Your task to perform on an android device: open chrome and create a bookmark for the current page Image 0: 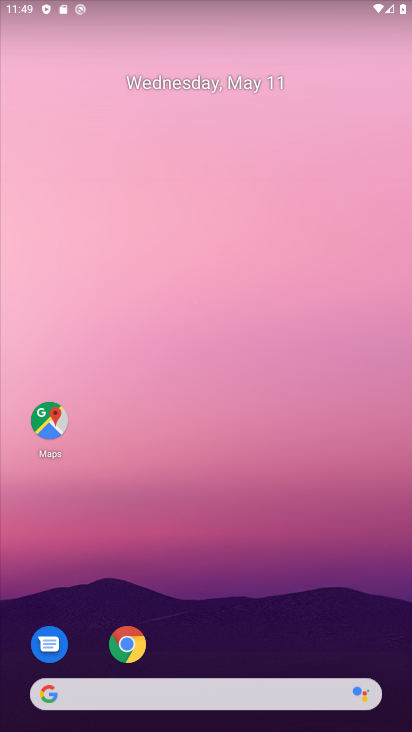
Step 0: drag from (252, 615) to (208, 130)
Your task to perform on an android device: open chrome and create a bookmark for the current page Image 1: 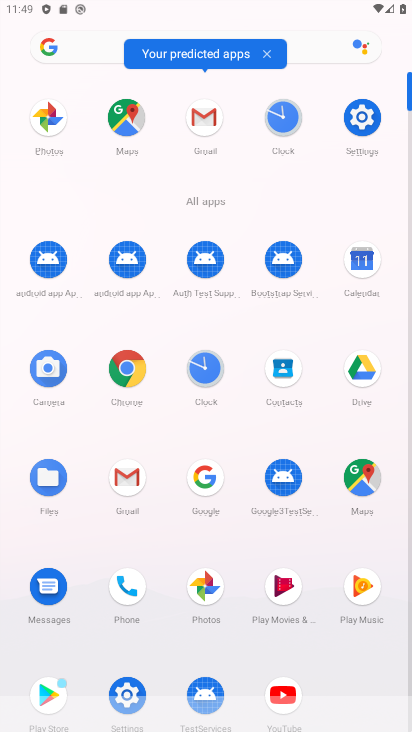
Step 1: click (114, 376)
Your task to perform on an android device: open chrome and create a bookmark for the current page Image 2: 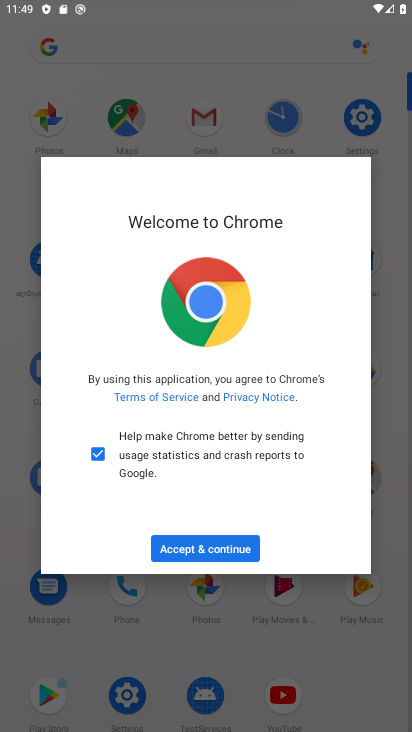
Step 2: click (241, 548)
Your task to perform on an android device: open chrome and create a bookmark for the current page Image 3: 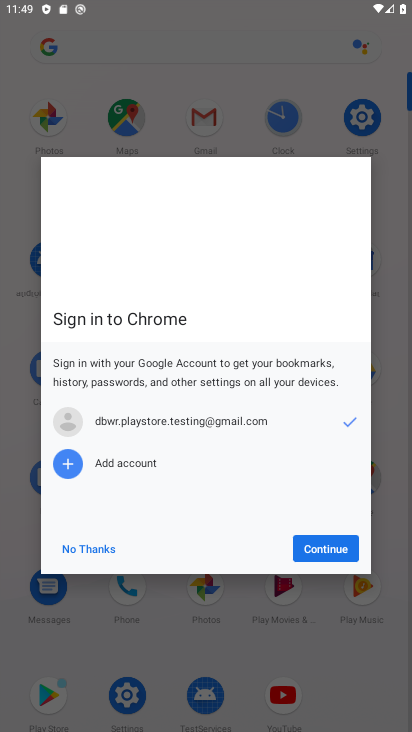
Step 3: click (329, 542)
Your task to perform on an android device: open chrome and create a bookmark for the current page Image 4: 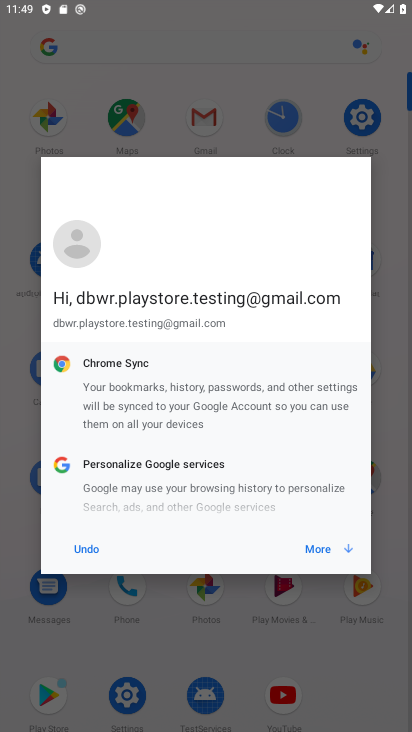
Step 4: click (329, 542)
Your task to perform on an android device: open chrome and create a bookmark for the current page Image 5: 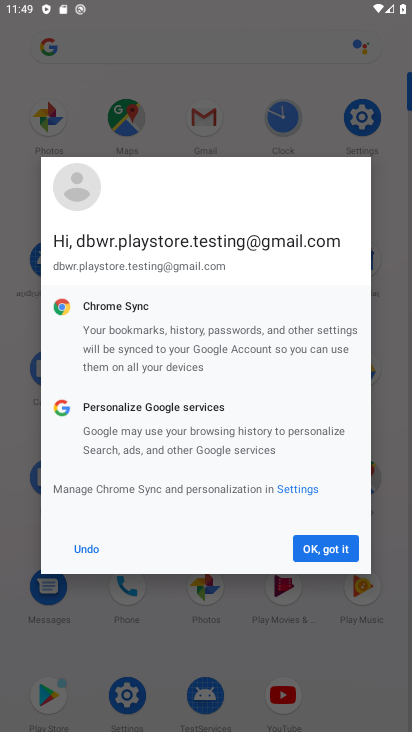
Step 5: click (329, 542)
Your task to perform on an android device: open chrome and create a bookmark for the current page Image 6: 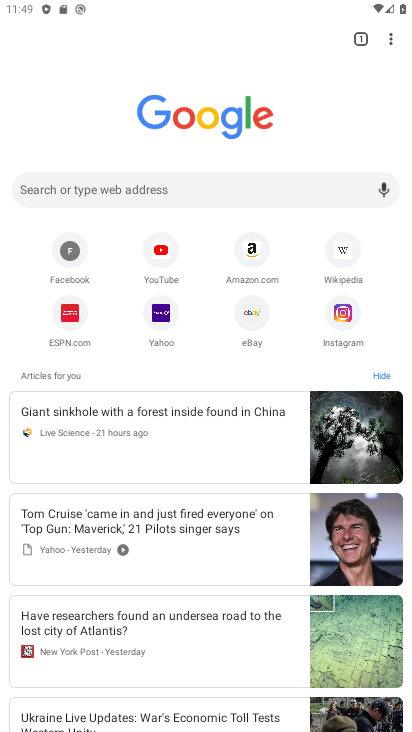
Step 6: click (262, 183)
Your task to perform on an android device: open chrome and create a bookmark for the current page Image 7: 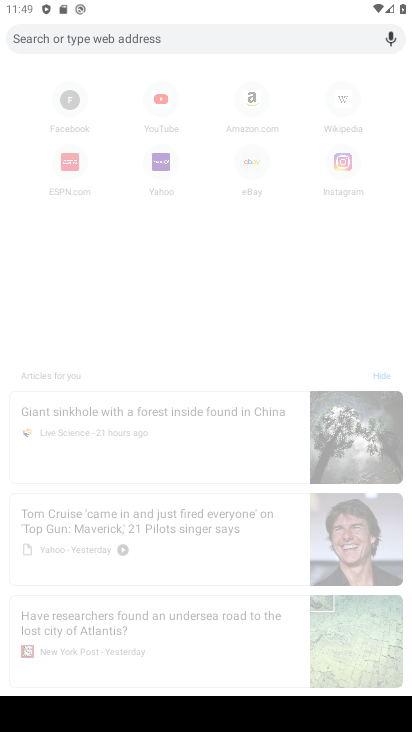
Step 7: type "cricket"
Your task to perform on an android device: open chrome and create a bookmark for the current page Image 8: 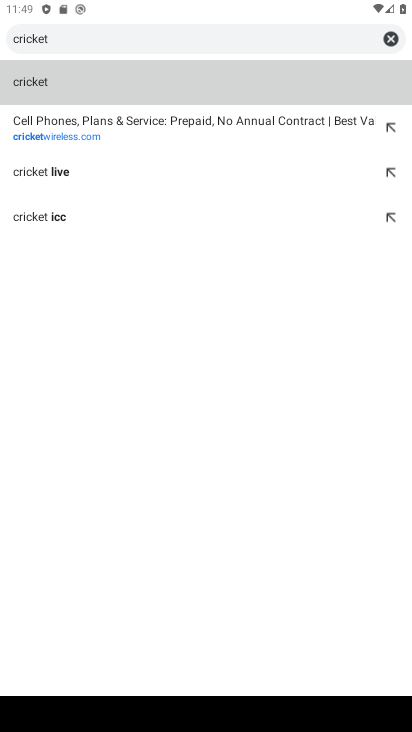
Step 8: click (109, 169)
Your task to perform on an android device: open chrome and create a bookmark for the current page Image 9: 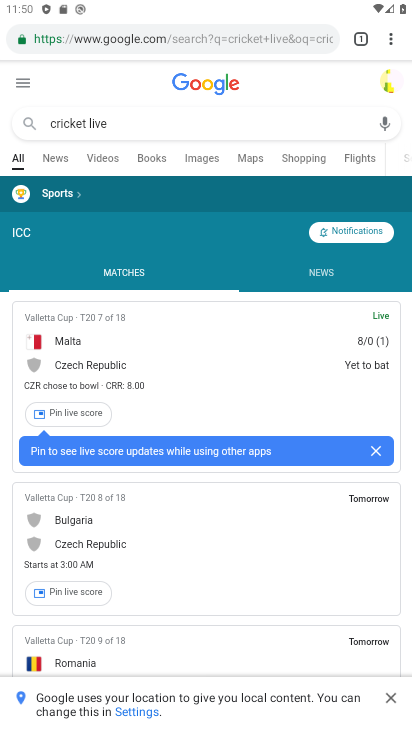
Step 9: click (389, 38)
Your task to perform on an android device: open chrome and create a bookmark for the current page Image 10: 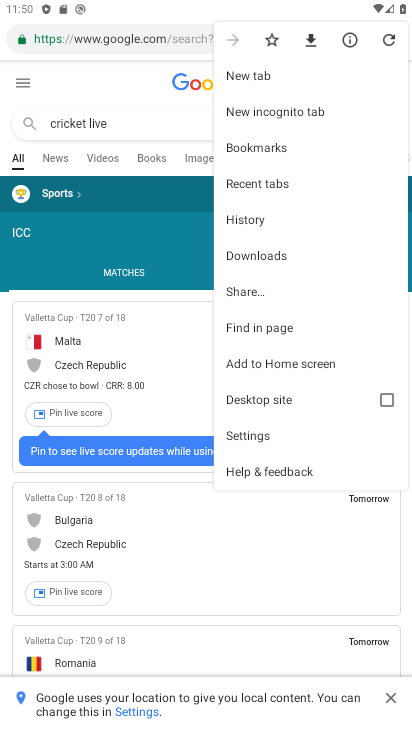
Step 10: click (261, 33)
Your task to perform on an android device: open chrome and create a bookmark for the current page Image 11: 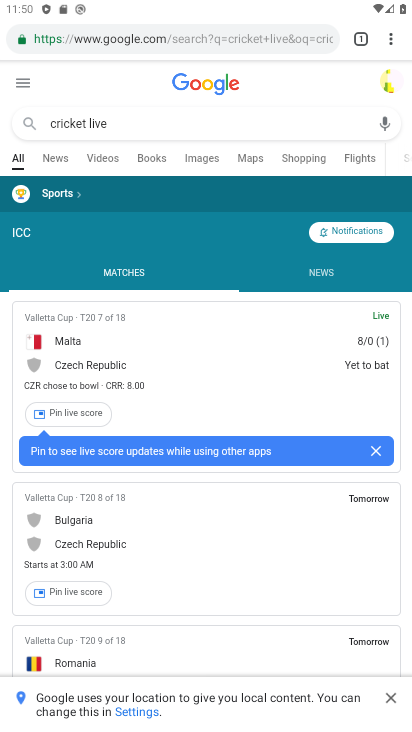
Step 11: task complete